Your task to perform on an android device: Open calendar and show me the fourth week of next month Image 0: 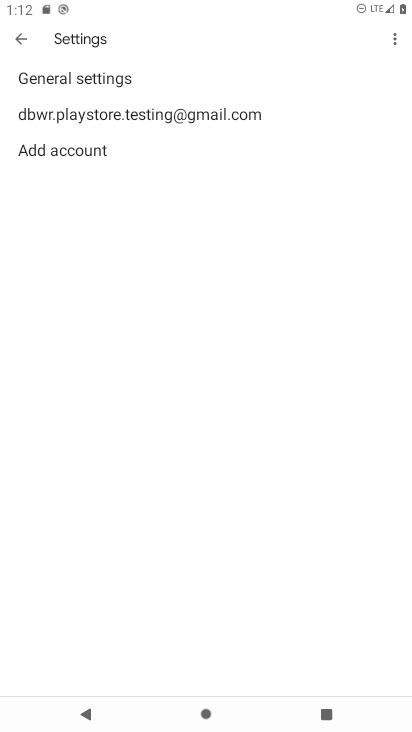
Step 0: press home button
Your task to perform on an android device: Open calendar and show me the fourth week of next month Image 1: 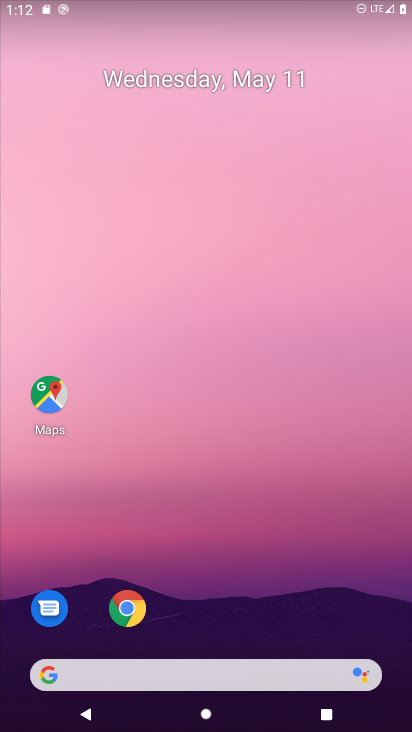
Step 1: drag from (227, 519) to (199, 44)
Your task to perform on an android device: Open calendar and show me the fourth week of next month Image 2: 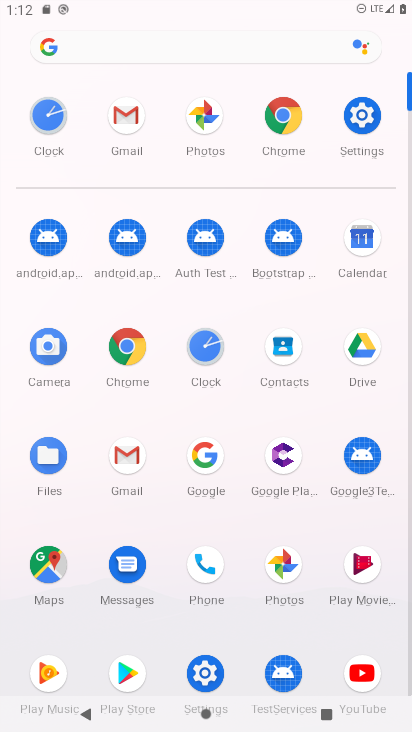
Step 2: click (363, 235)
Your task to perform on an android device: Open calendar and show me the fourth week of next month Image 3: 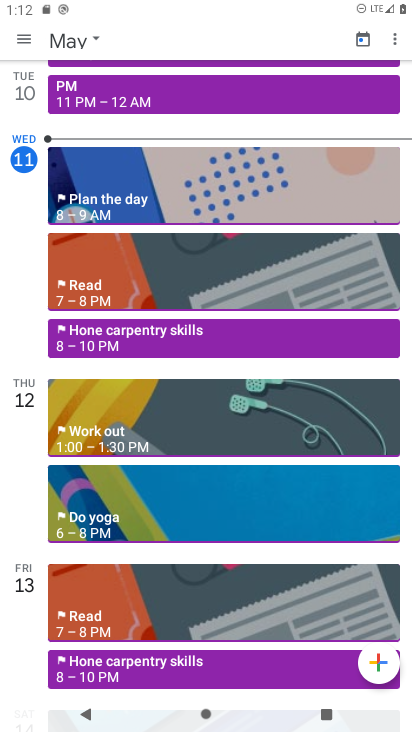
Step 3: click (22, 35)
Your task to perform on an android device: Open calendar and show me the fourth week of next month Image 4: 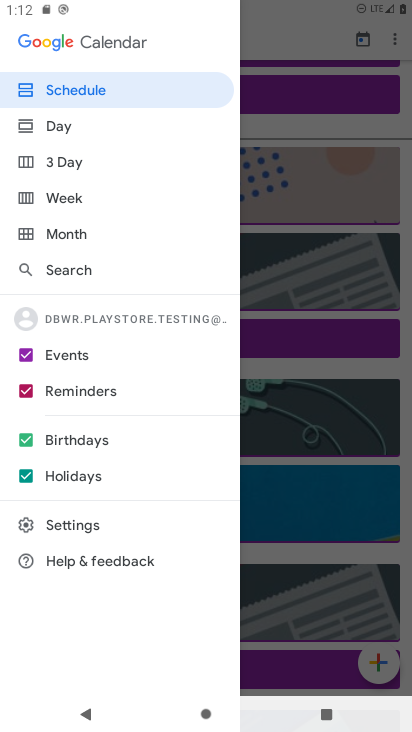
Step 4: click (64, 223)
Your task to perform on an android device: Open calendar and show me the fourth week of next month Image 5: 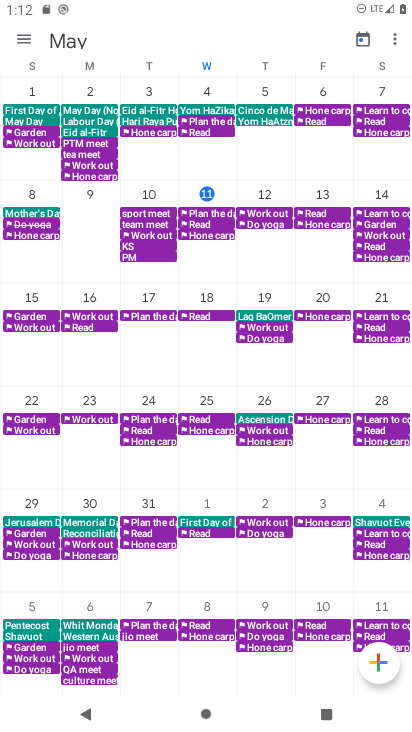
Step 5: drag from (376, 369) to (9, 350)
Your task to perform on an android device: Open calendar and show me the fourth week of next month Image 6: 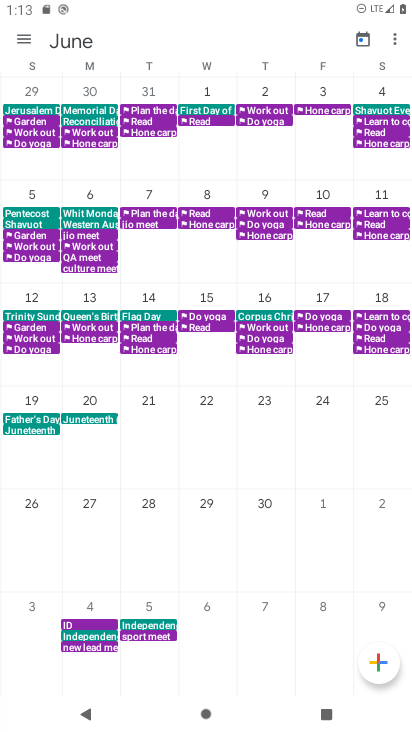
Step 6: click (32, 505)
Your task to perform on an android device: Open calendar and show me the fourth week of next month Image 7: 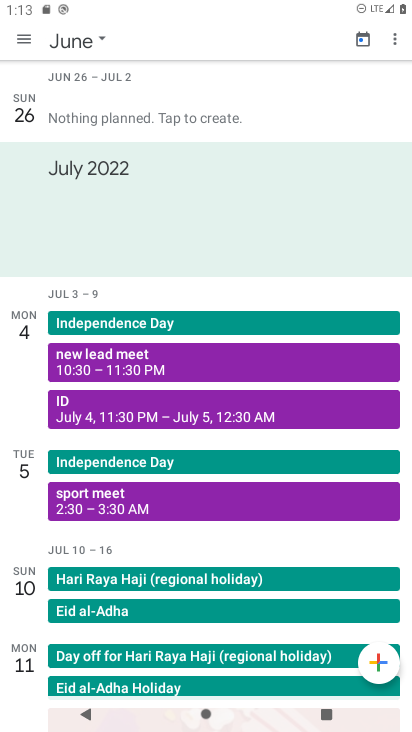
Step 7: click (17, 35)
Your task to perform on an android device: Open calendar and show me the fourth week of next month Image 8: 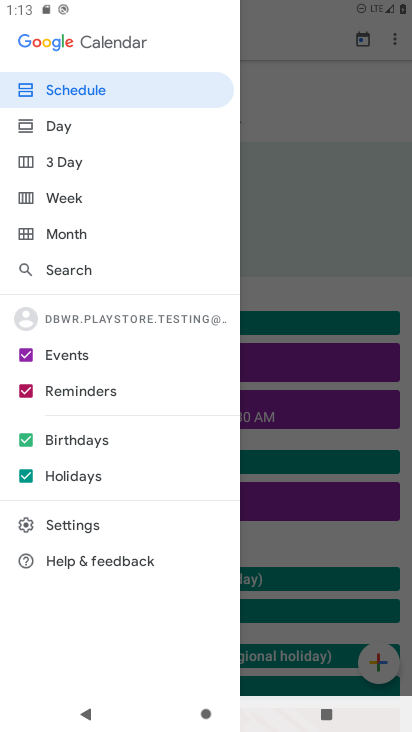
Step 8: click (53, 194)
Your task to perform on an android device: Open calendar and show me the fourth week of next month Image 9: 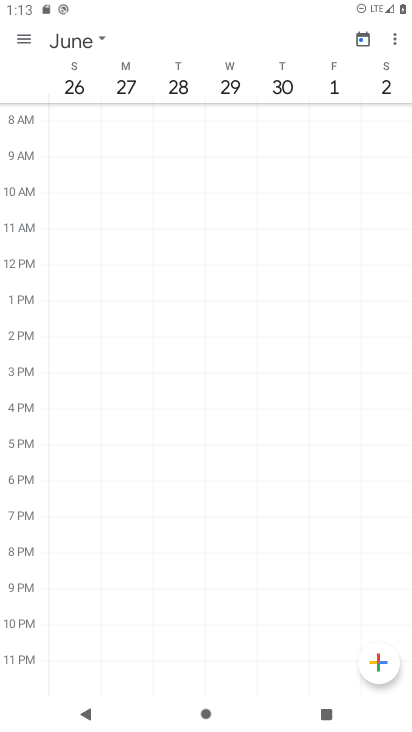
Step 9: task complete